Your task to perform on an android device: Open settings Image 0: 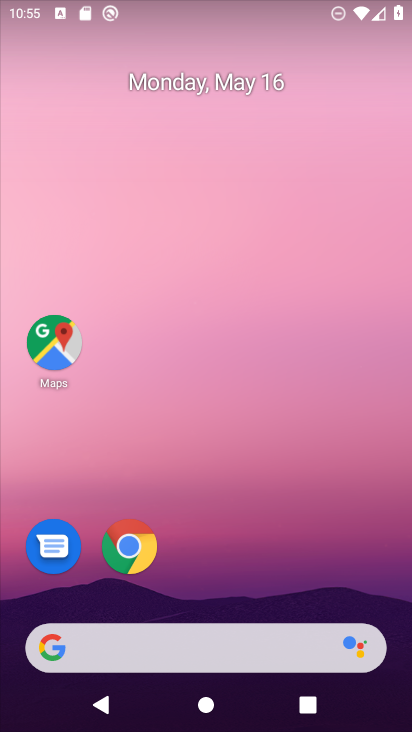
Step 0: drag from (183, 609) to (199, 22)
Your task to perform on an android device: Open settings Image 1: 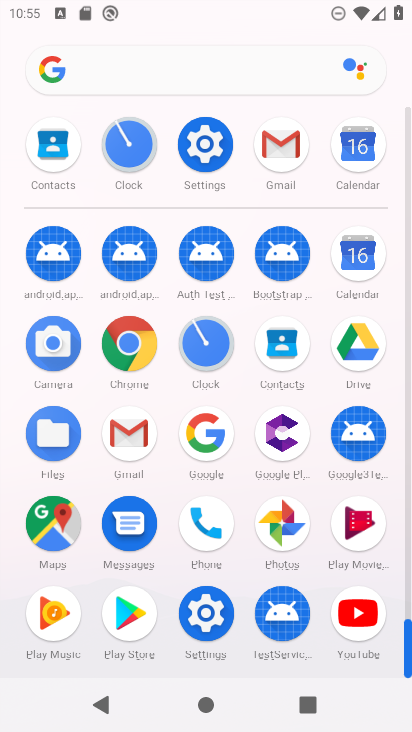
Step 1: click (202, 184)
Your task to perform on an android device: Open settings Image 2: 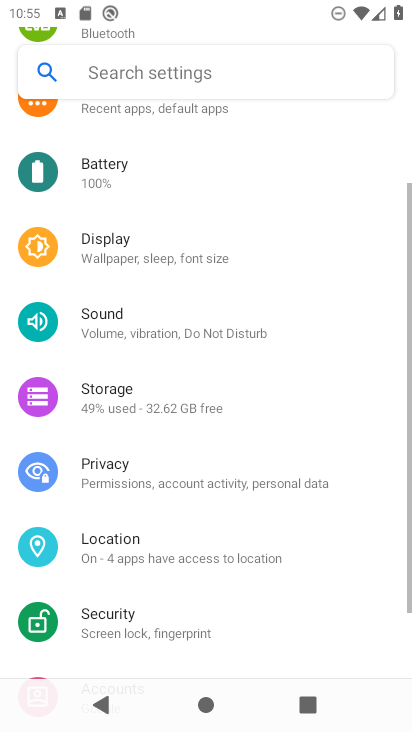
Step 2: click (200, 167)
Your task to perform on an android device: Open settings Image 3: 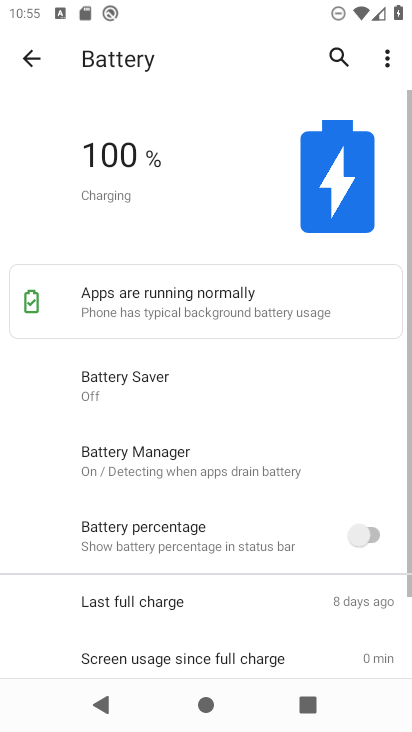
Step 3: task complete